Your task to perform on an android device: change keyboard looks Image 0: 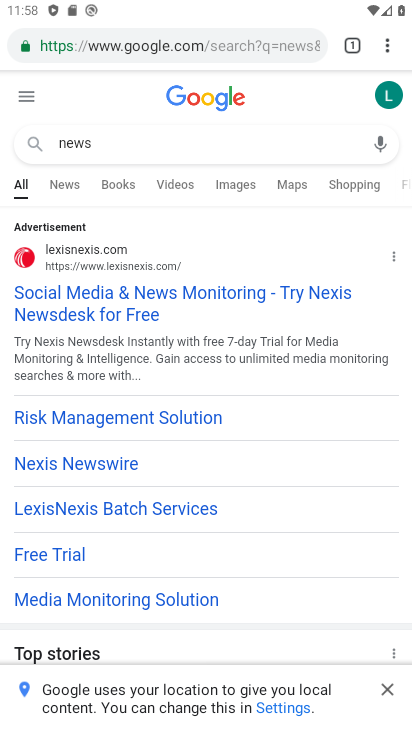
Step 0: press home button
Your task to perform on an android device: change keyboard looks Image 1: 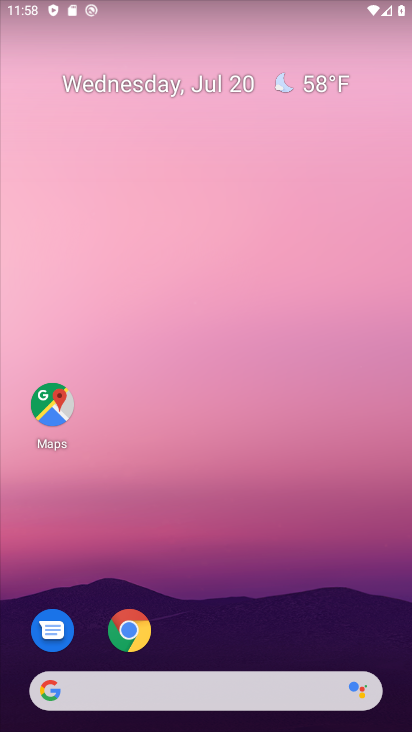
Step 1: drag from (258, 675) to (270, 250)
Your task to perform on an android device: change keyboard looks Image 2: 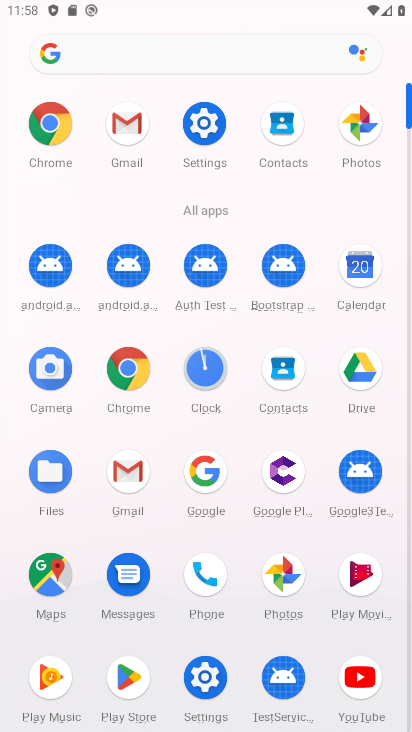
Step 2: click (209, 682)
Your task to perform on an android device: change keyboard looks Image 3: 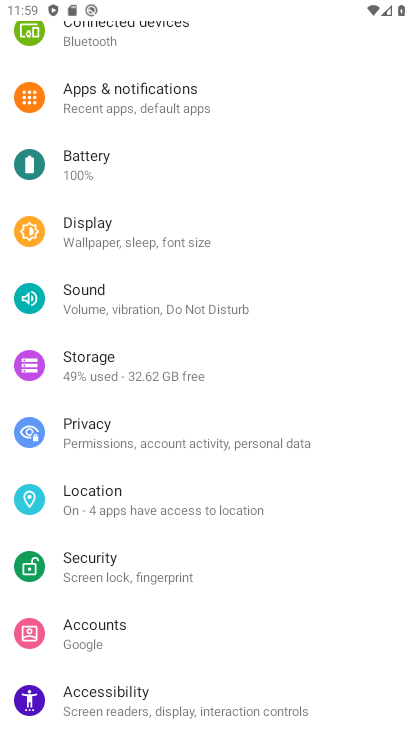
Step 3: drag from (218, 598) to (224, 269)
Your task to perform on an android device: change keyboard looks Image 4: 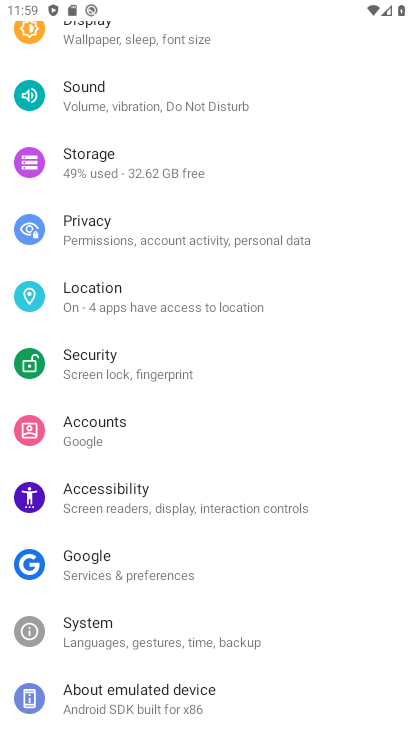
Step 4: click (160, 641)
Your task to perform on an android device: change keyboard looks Image 5: 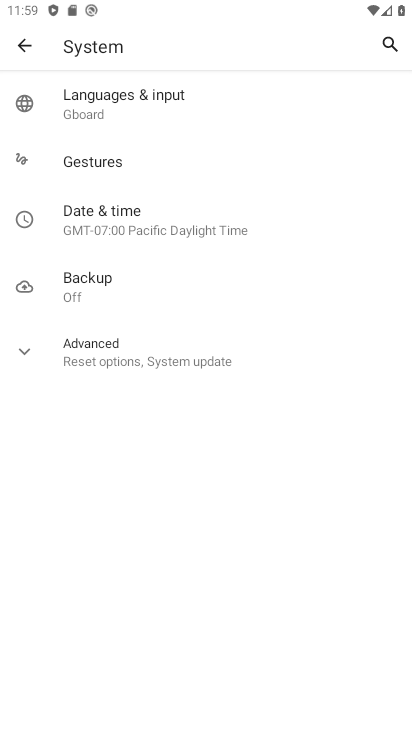
Step 5: click (78, 97)
Your task to perform on an android device: change keyboard looks Image 6: 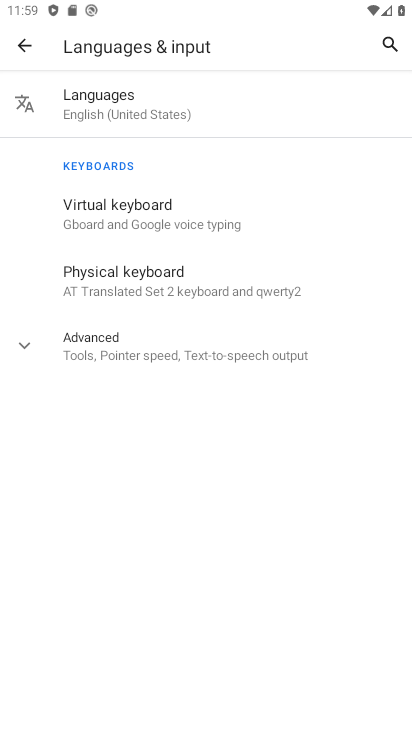
Step 6: click (122, 205)
Your task to perform on an android device: change keyboard looks Image 7: 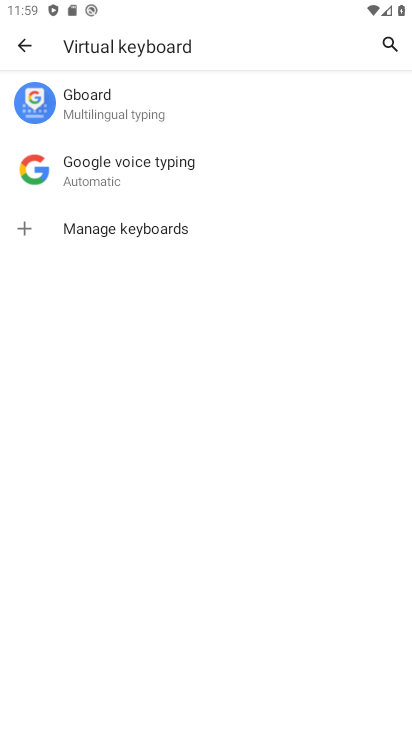
Step 7: click (123, 120)
Your task to perform on an android device: change keyboard looks Image 8: 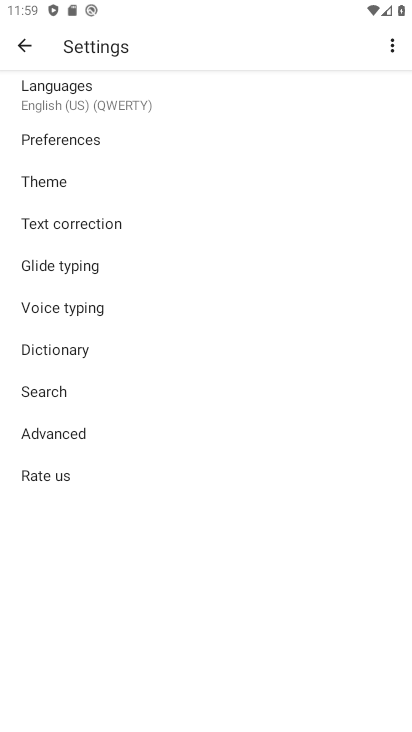
Step 8: click (61, 181)
Your task to perform on an android device: change keyboard looks Image 9: 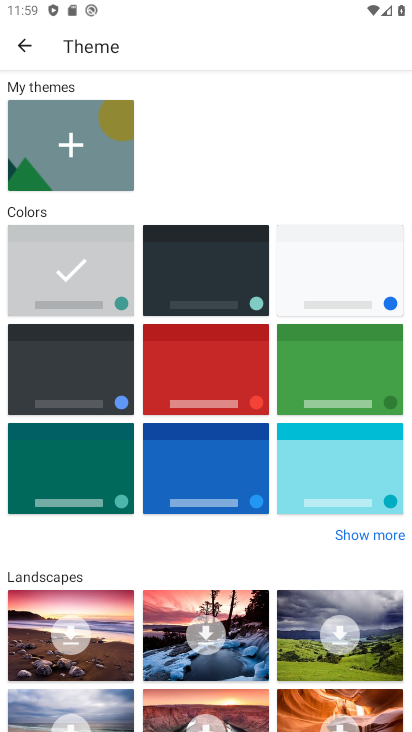
Step 9: click (321, 277)
Your task to perform on an android device: change keyboard looks Image 10: 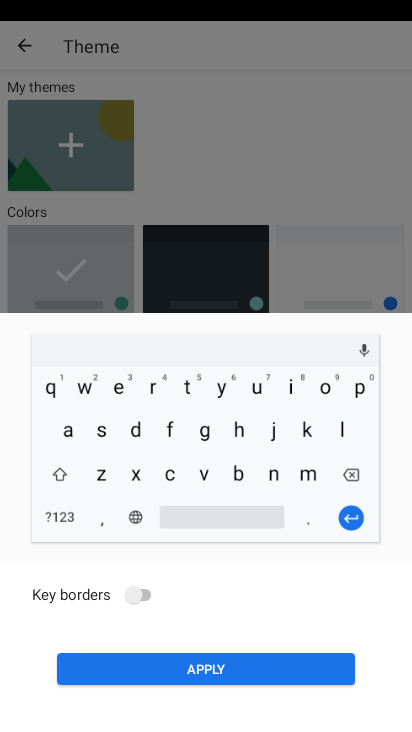
Step 10: click (192, 666)
Your task to perform on an android device: change keyboard looks Image 11: 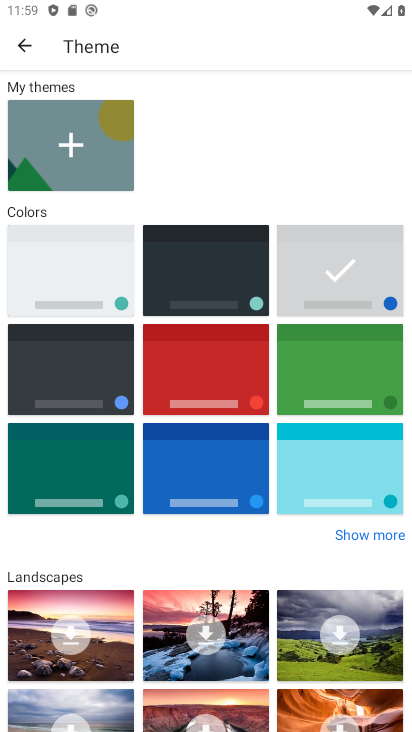
Step 11: task complete